Your task to perform on an android device: search for starred emails in the gmail app Image 0: 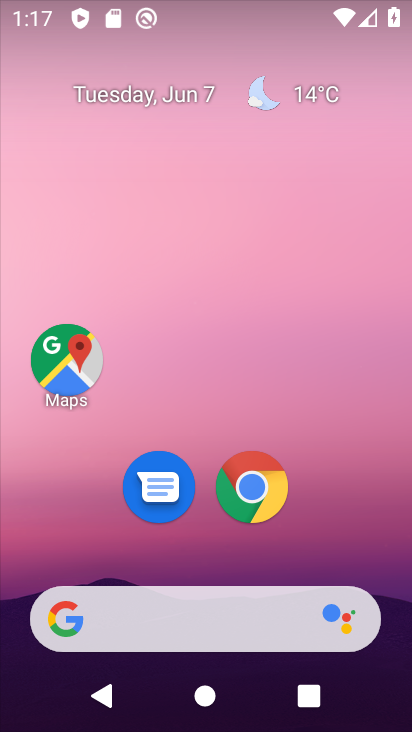
Step 0: drag from (238, 574) to (198, 85)
Your task to perform on an android device: search for starred emails in the gmail app Image 1: 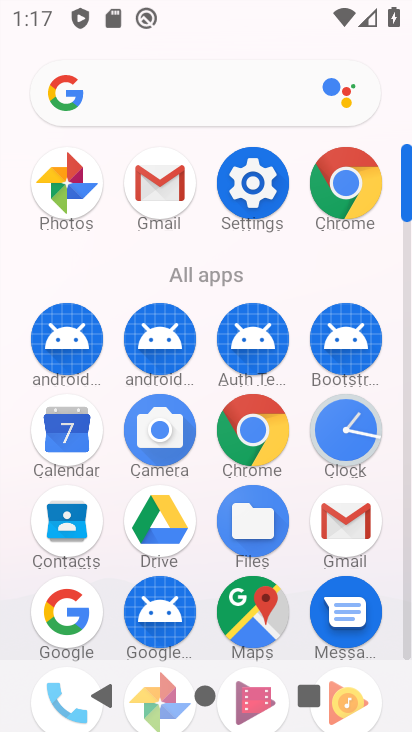
Step 1: click (346, 519)
Your task to perform on an android device: search for starred emails in the gmail app Image 2: 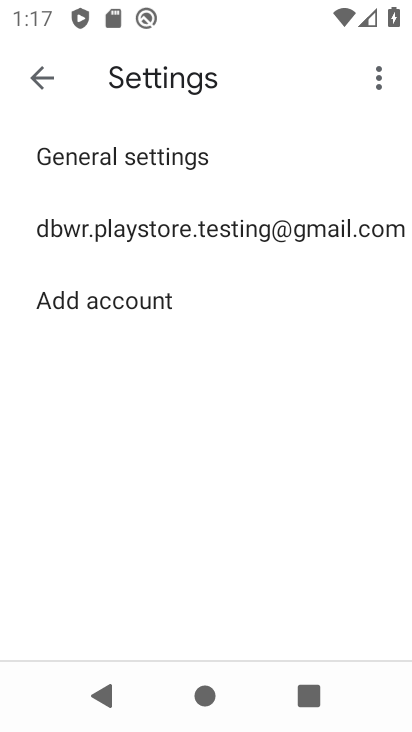
Step 2: click (35, 85)
Your task to perform on an android device: search for starred emails in the gmail app Image 3: 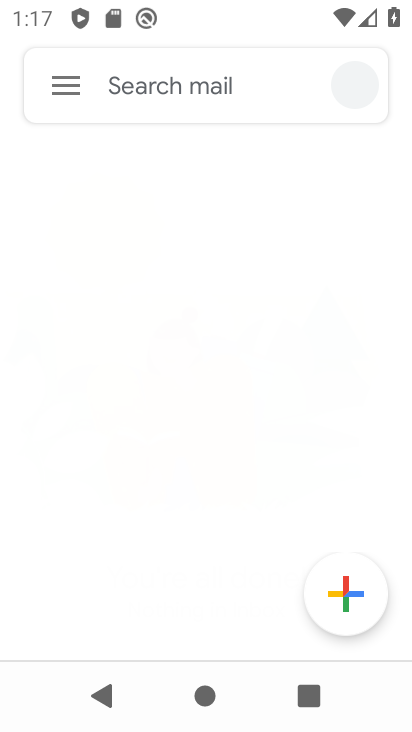
Step 3: click (35, 82)
Your task to perform on an android device: search for starred emails in the gmail app Image 4: 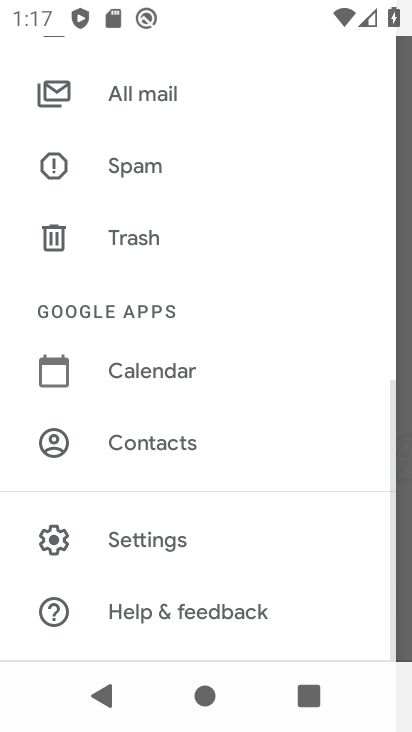
Step 4: drag from (153, 162) to (122, 658)
Your task to perform on an android device: search for starred emails in the gmail app Image 5: 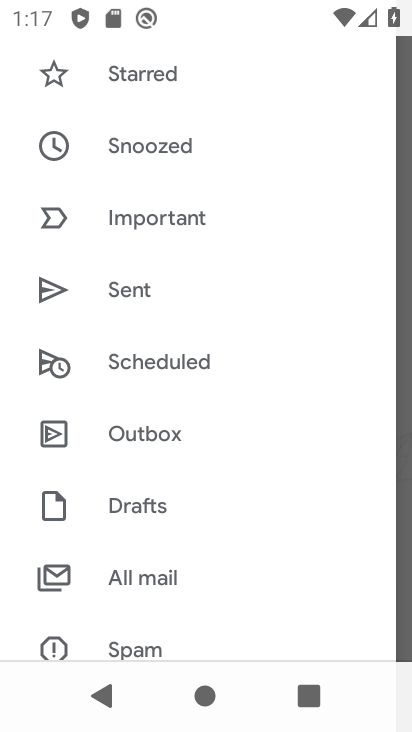
Step 5: click (138, 79)
Your task to perform on an android device: search for starred emails in the gmail app Image 6: 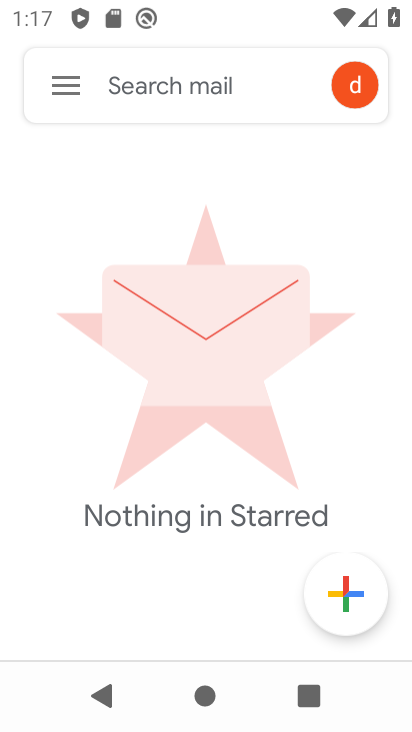
Step 6: task complete